Your task to perform on an android device: change timer sound Image 0: 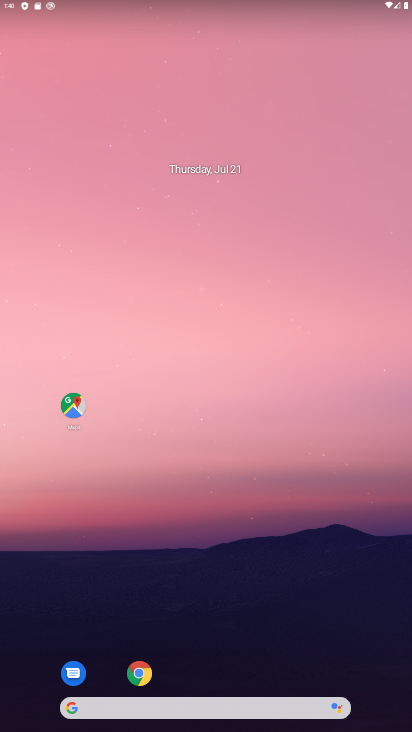
Step 0: drag from (205, 640) to (260, 18)
Your task to perform on an android device: change timer sound Image 1: 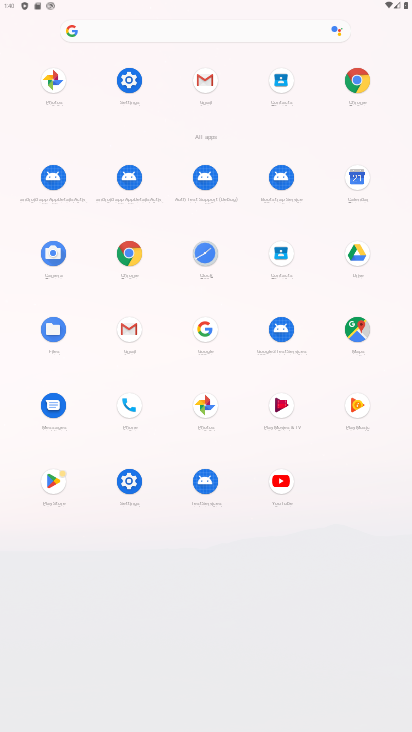
Step 1: click (200, 262)
Your task to perform on an android device: change timer sound Image 2: 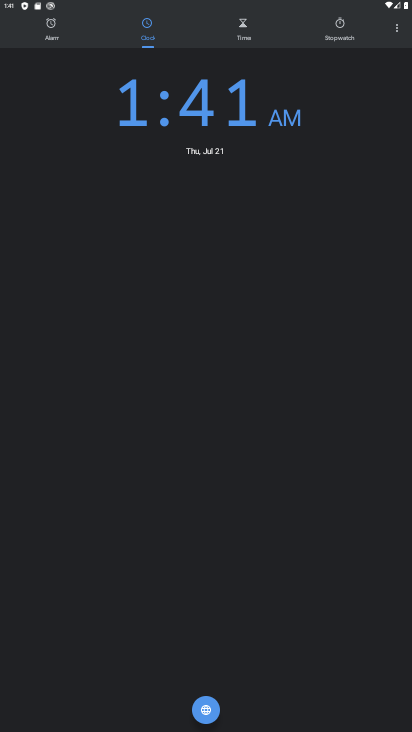
Step 2: click (398, 26)
Your task to perform on an android device: change timer sound Image 3: 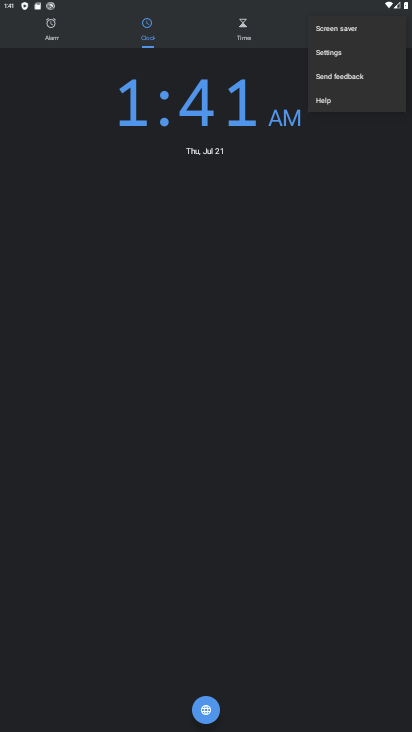
Step 3: click (340, 57)
Your task to perform on an android device: change timer sound Image 4: 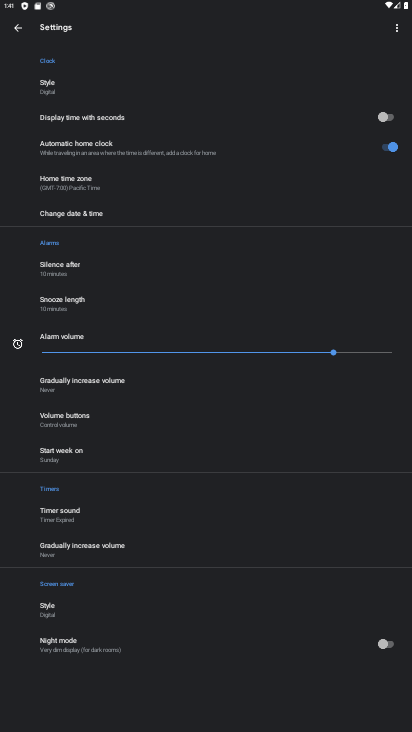
Step 4: click (49, 516)
Your task to perform on an android device: change timer sound Image 5: 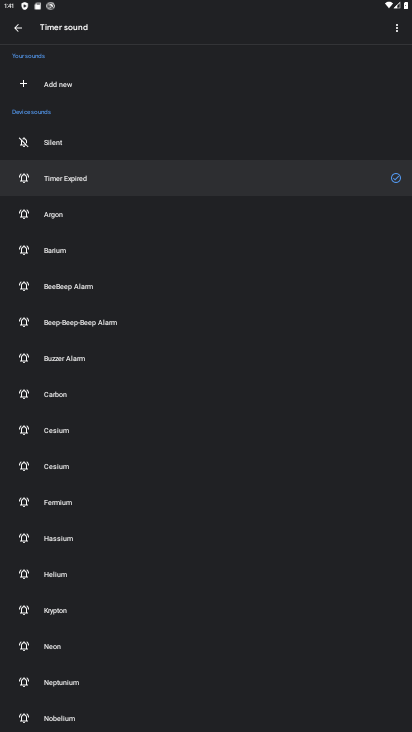
Step 5: click (63, 217)
Your task to perform on an android device: change timer sound Image 6: 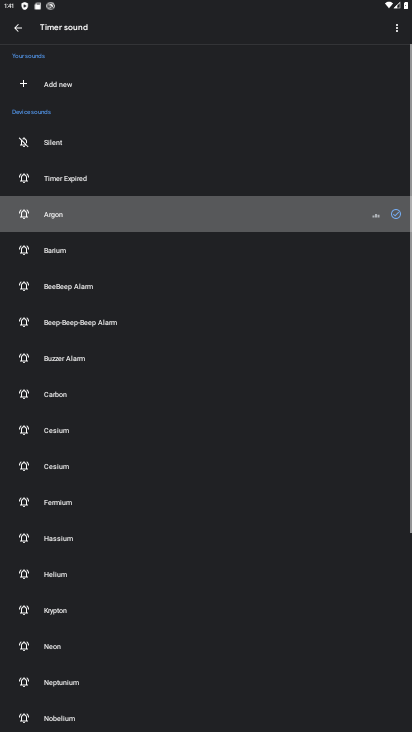
Step 6: click (63, 217)
Your task to perform on an android device: change timer sound Image 7: 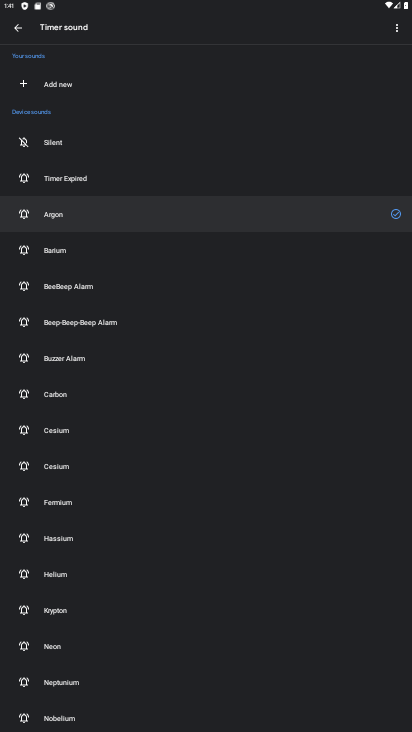
Step 7: task complete